Your task to perform on an android device: install app "Duolingo: language lessons" Image 0: 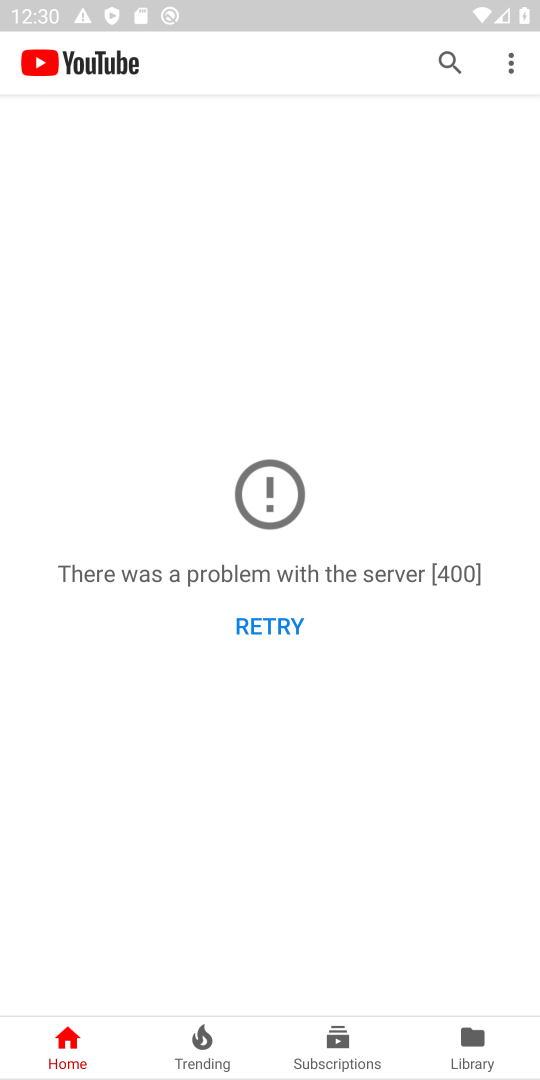
Step 0: press home button
Your task to perform on an android device: install app "Duolingo: language lessons" Image 1: 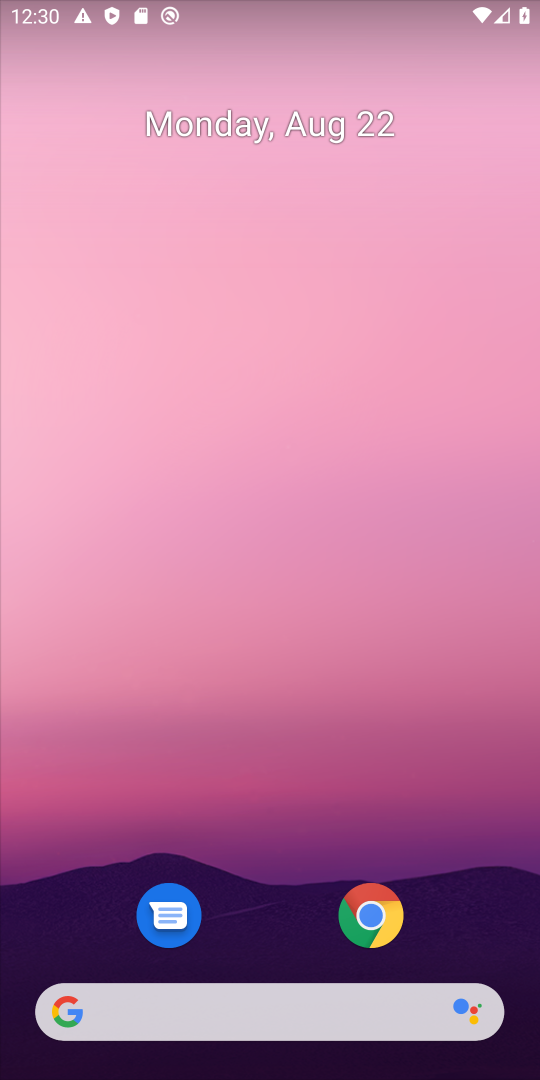
Step 1: drag from (287, 944) to (509, 29)
Your task to perform on an android device: install app "Duolingo: language lessons" Image 2: 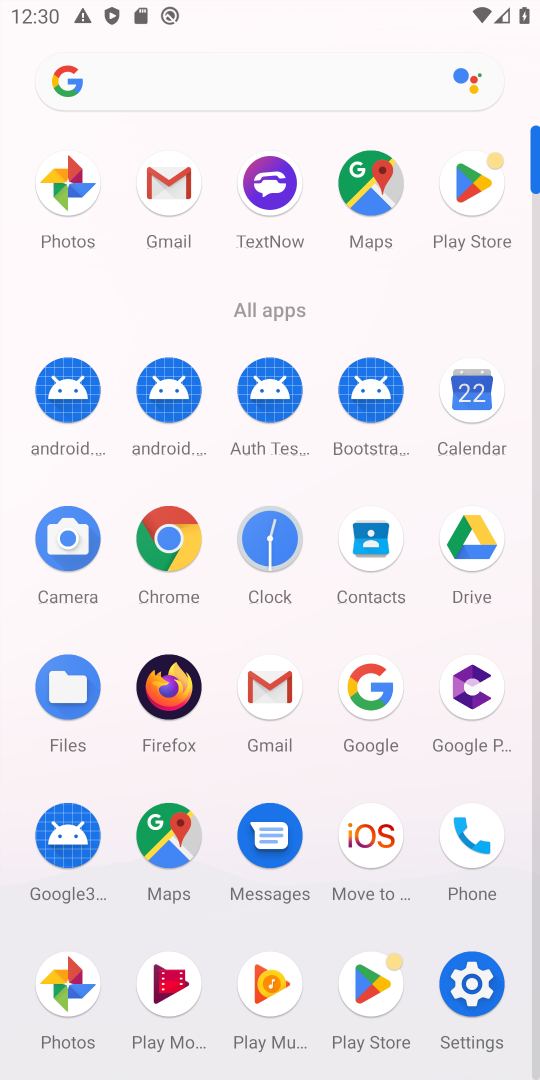
Step 2: click (388, 982)
Your task to perform on an android device: install app "Duolingo: language lessons" Image 3: 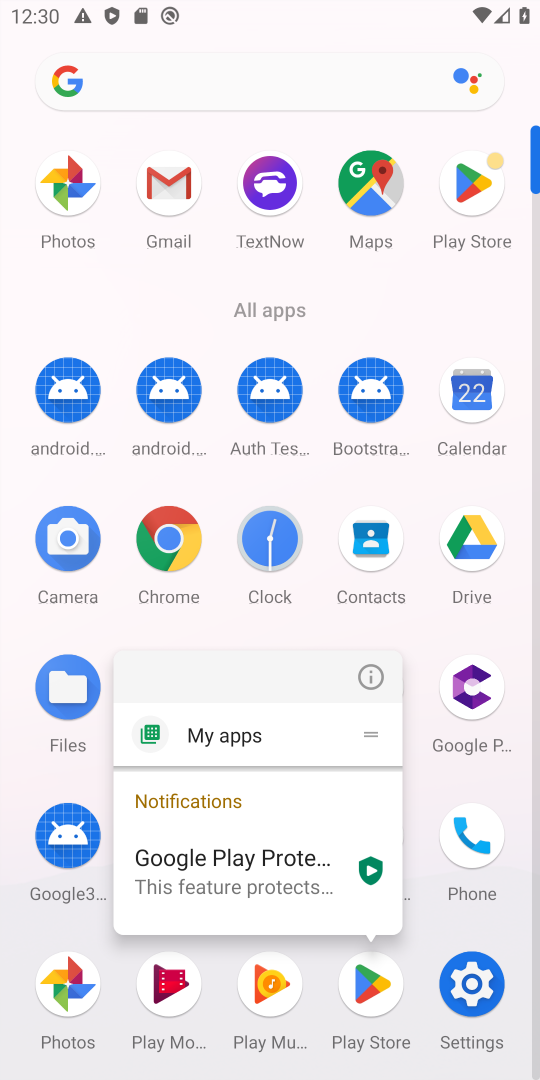
Step 3: click (375, 985)
Your task to perform on an android device: install app "Duolingo: language lessons" Image 4: 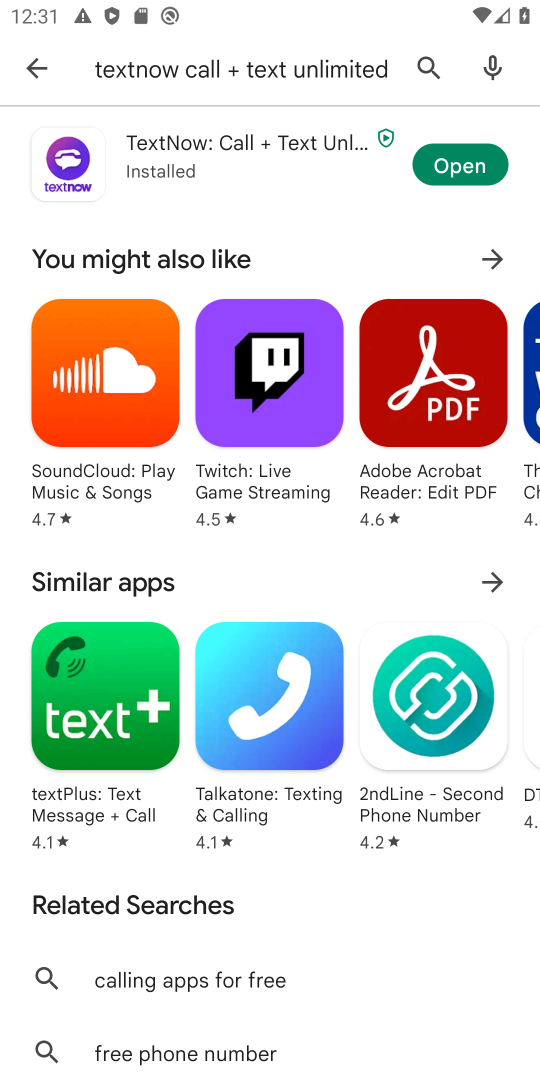
Step 4: click (42, 60)
Your task to perform on an android device: install app "Duolingo: language lessons" Image 5: 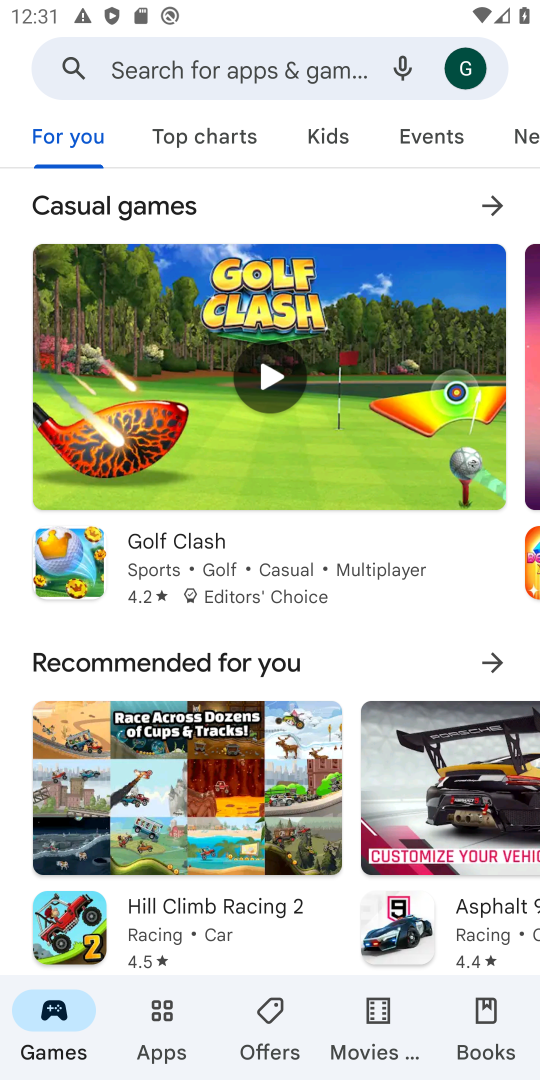
Step 5: click (139, 64)
Your task to perform on an android device: install app "Duolingo: language lessons" Image 6: 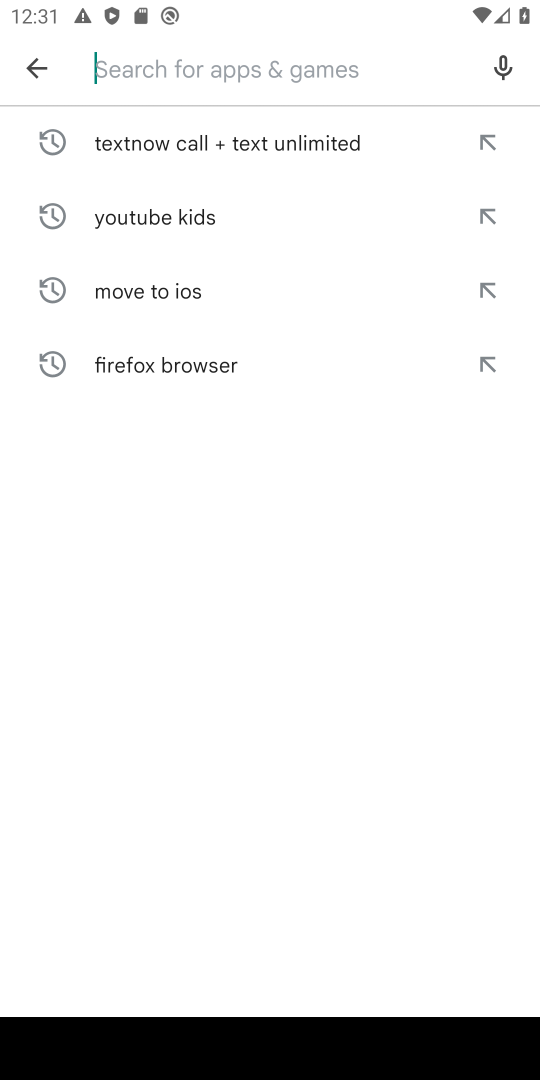
Step 6: type "Duolingo: language lessons"
Your task to perform on an android device: install app "Duolingo: language lessons" Image 7: 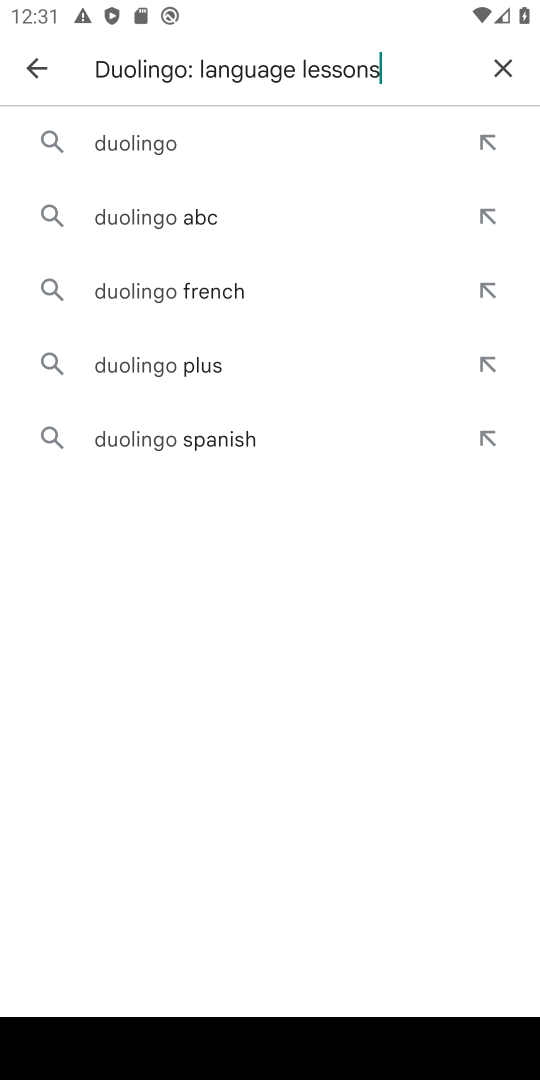
Step 7: type ""
Your task to perform on an android device: install app "Duolingo: language lessons" Image 8: 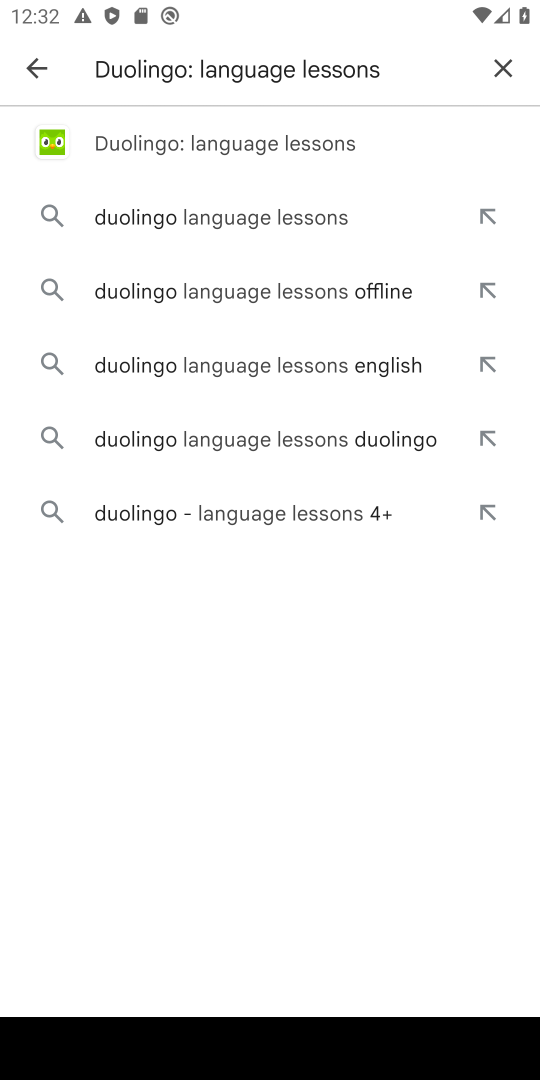
Step 8: click (93, 168)
Your task to perform on an android device: install app "Duolingo: language lessons" Image 9: 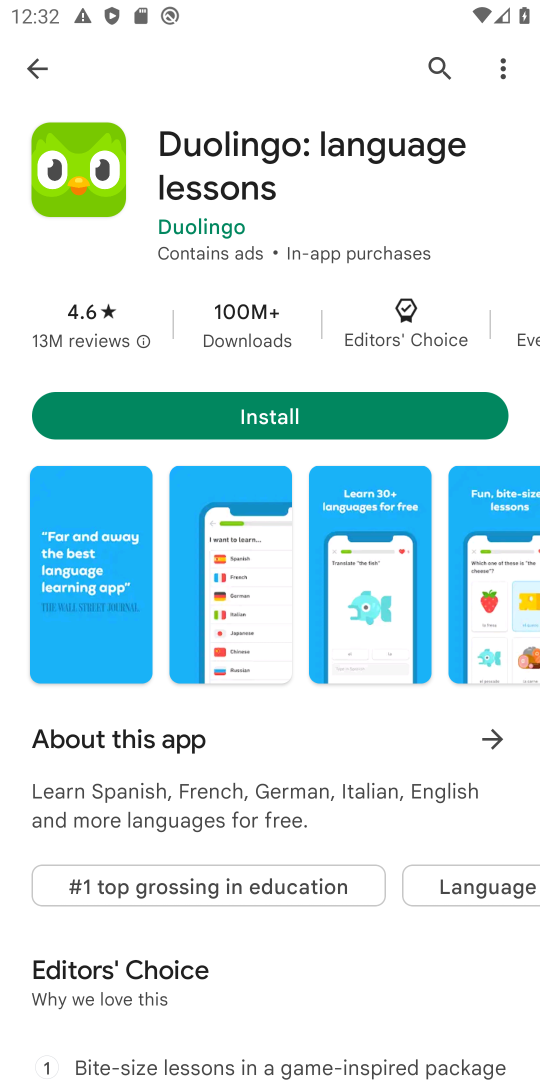
Step 9: click (231, 413)
Your task to perform on an android device: install app "Duolingo: language lessons" Image 10: 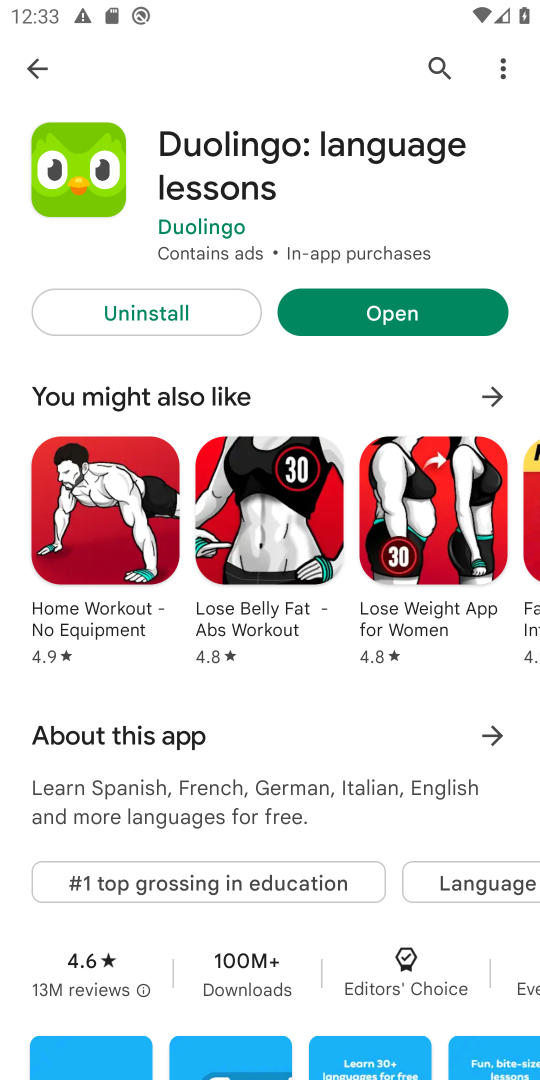
Step 10: click (436, 303)
Your task to perform on an android device: install app "Duolingo: language lessons" Image 11: 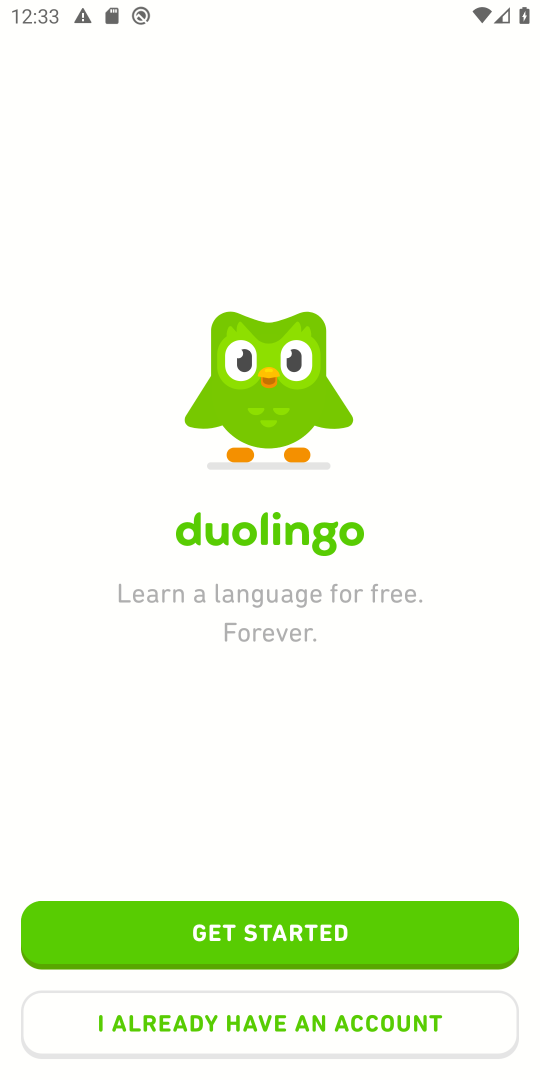
Step 11: task complete